Your task to perform on an android device: Search for vegetarian restaurants on Maps Image 0: 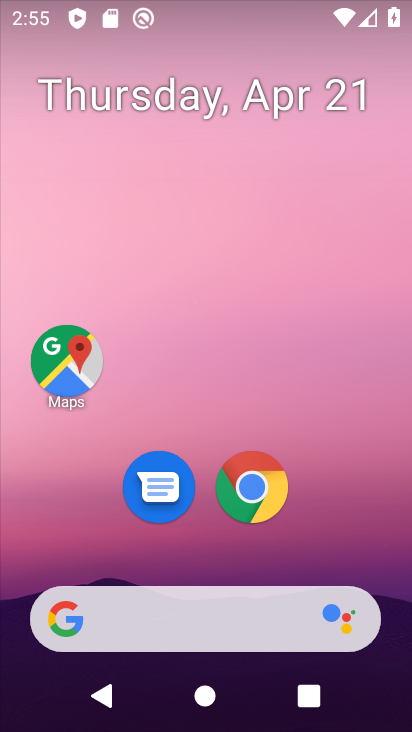
Step 0: click (86, 359)
Your task to perform on an android device: Search for vegetarian restaurants on Maps Image 1: 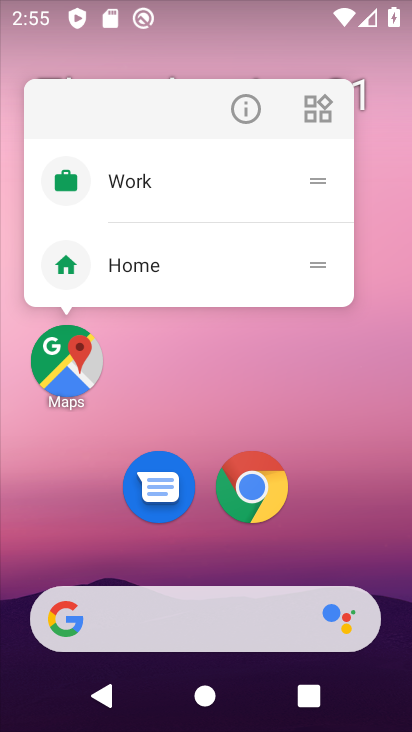
Step 1: click (65, 345)
Your task to perform on an android device: Search for vegetarian restaurants on Maps Image 2: 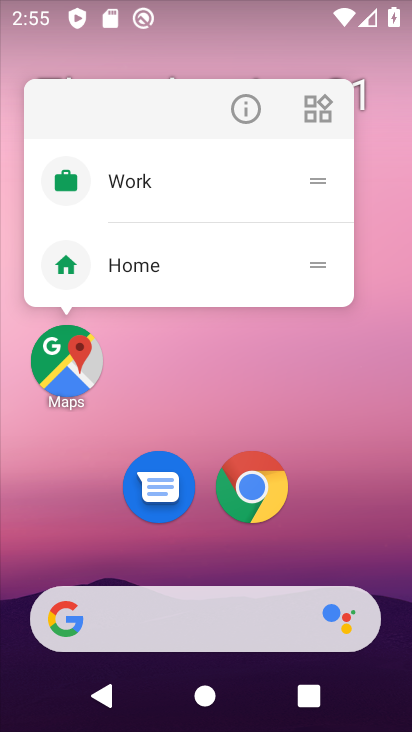
Step 2: click (71, 357)
Your task to perform on an android device: Search for vegetarian restaurants on Maps Image 3: 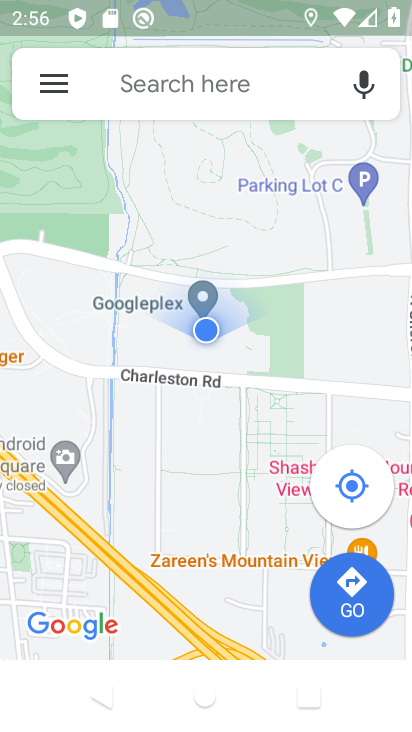
Step 3: click (154, 81)
Your task to perform on an android device: Search for vegetarian restaurants on Maps Image 4: 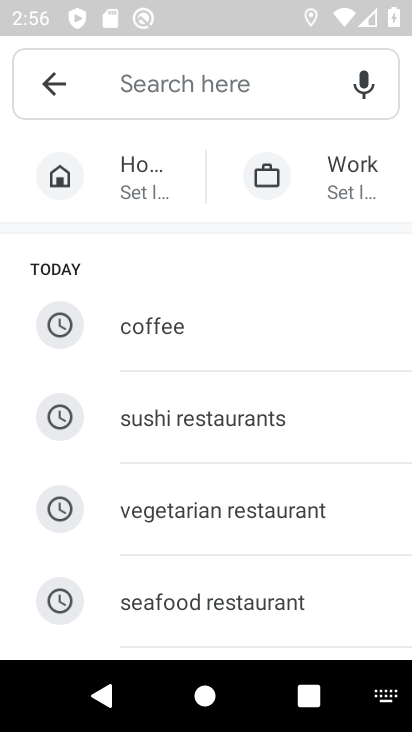
Step 4: click (232, 520)
Your task to perform on an android device: Search for vegetarian restaurants on Maps Image 5: 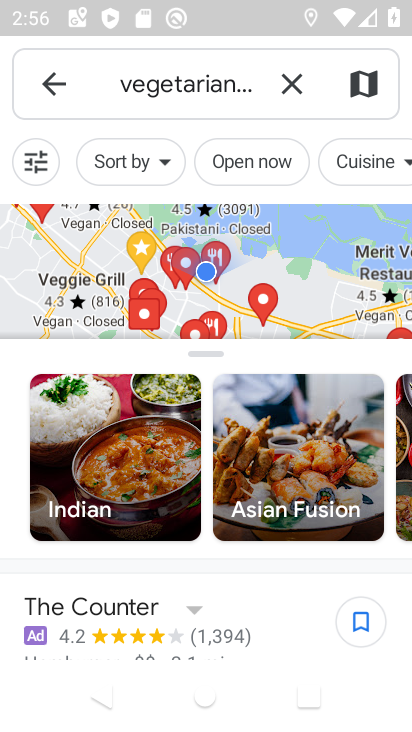
Step 5: task complete